Your task to perform on an android device: toggle translation in the chrome app Image 0: 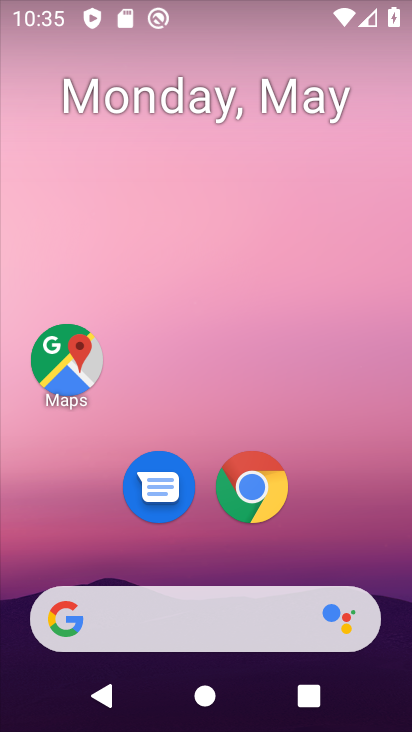
Step 0: drag from (386, 561) to (398, 250)
Your task to perform on an android device: toggle translation in the chrome app Image 1: 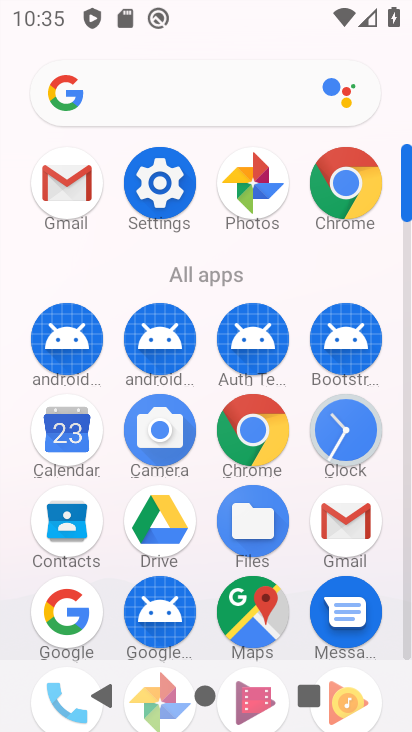
Step 1: click (250, 447)
Your task to perform on an android device: toggle translation in the chrome app Image 2: 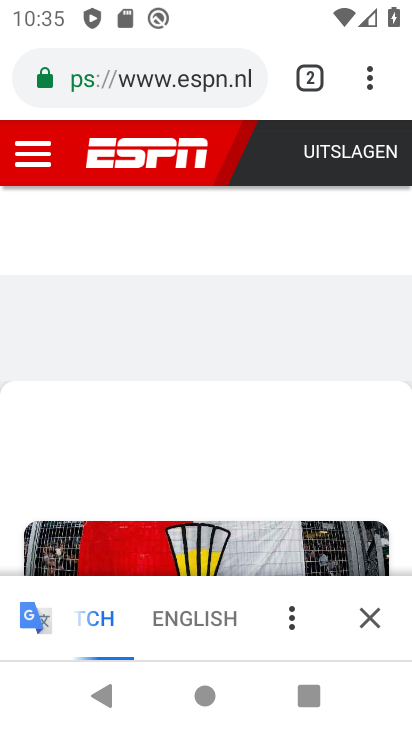
Step 2: click (369, 87)
Your task to perform on an android device: toggle translation in the chrome app Image 3: 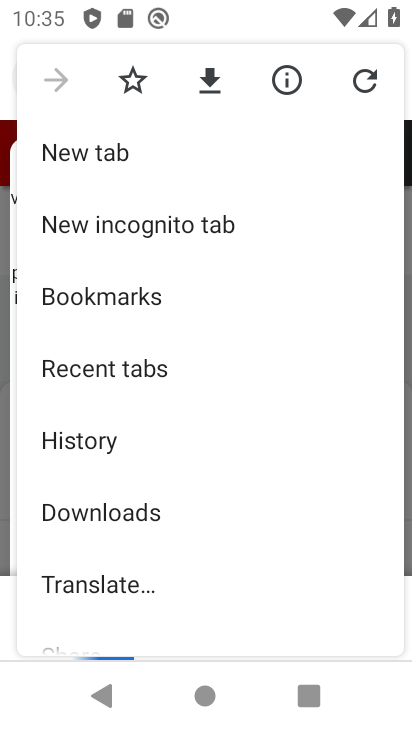
Step 3: drag from (312, 488) to (316, 382)
Your task to perform on an android device: toggle translation in the chrome app Image 4: 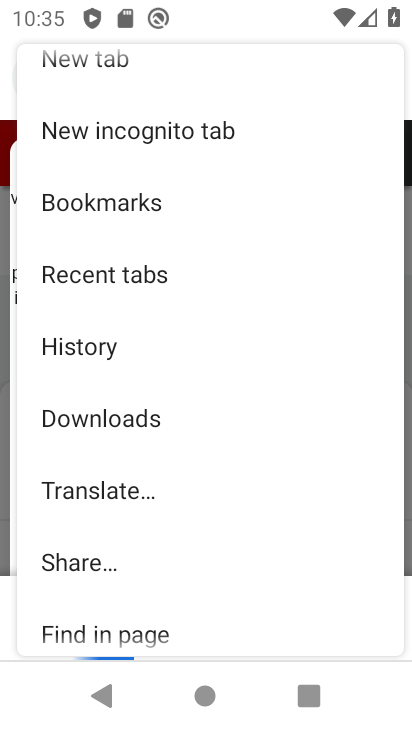
Step 4: drag from (309, 585) to (317, 383)
Your task to perform on an android device: toggle translation in the chrome app Image 5: 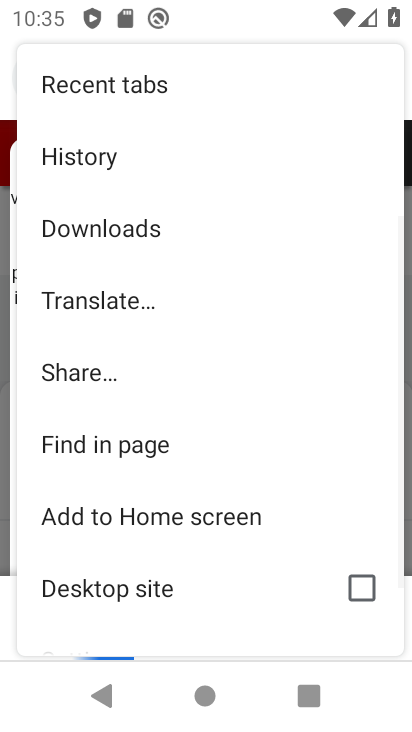
Step 5: drag from (274, 550) to (293, 436)
Your task to perform on an android device: toggle translation in the chrome app Image 6: 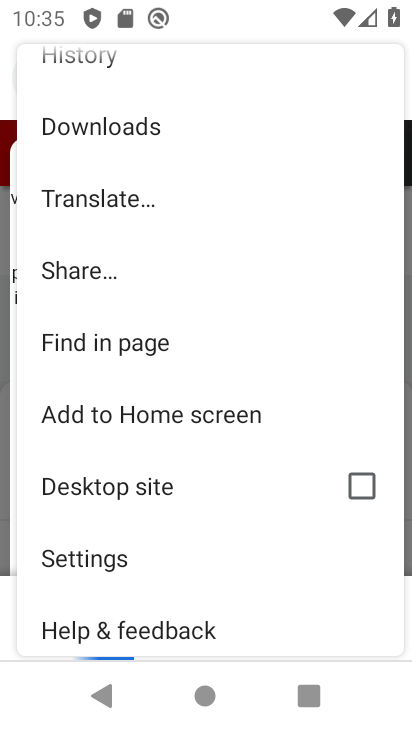
Step 6: drag from (285, 519) to (291, 482)
Your task to perform on an android device: toggle translation in the chrome app Image 7: 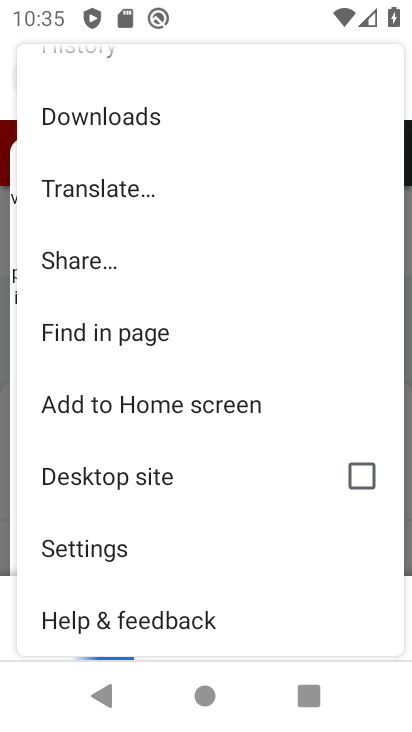
Step 7: click (145, 561)
Your task to perform on an android device: toggle translation in the chrome app Image 8: 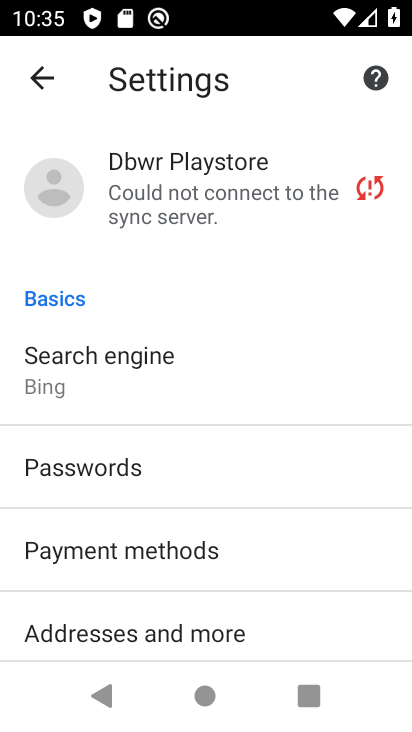
Step 8: drag from (296, 615) to (312, 530)
Your task to perform on an android device: toggle translation in the chrome app Image 9: 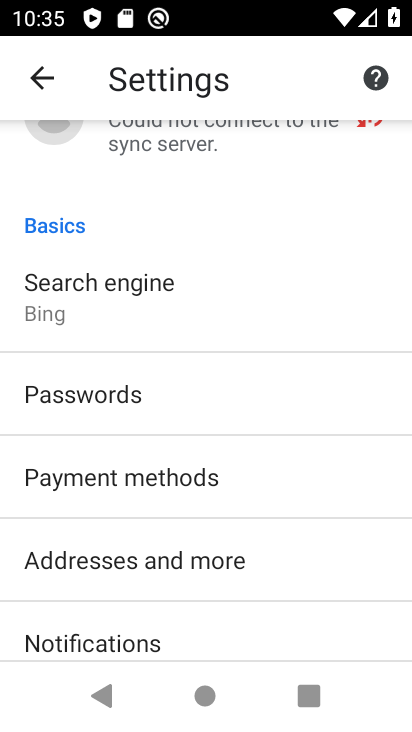
Step 9: click (303, 571)
Your task to perform on an android device: toggle translation in the chrome app Image 10: 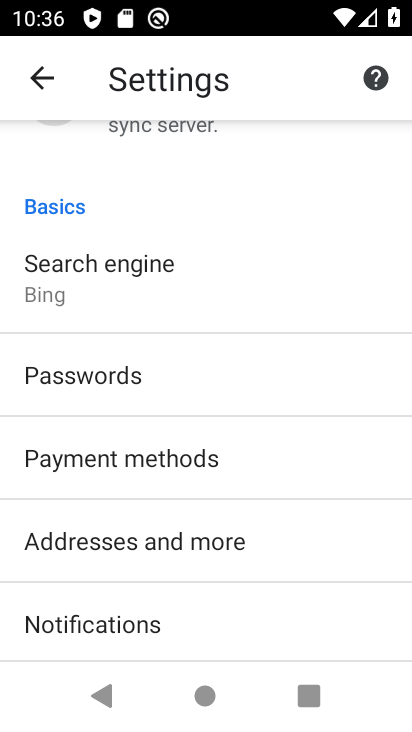
Step 10: click (303, 536)
Your task to perform on an android device: toggle translation in the chrome app Image 11: 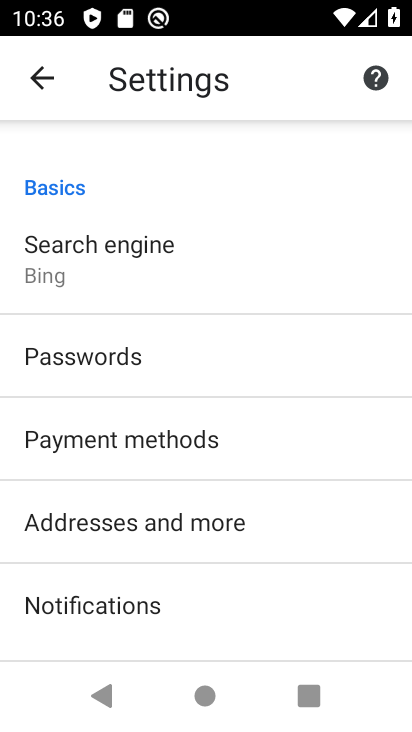
Step 11: drag from (304, 581) to (323, 472)
Your task to perform on an android device: toggle translation in the chrome app Image 12: 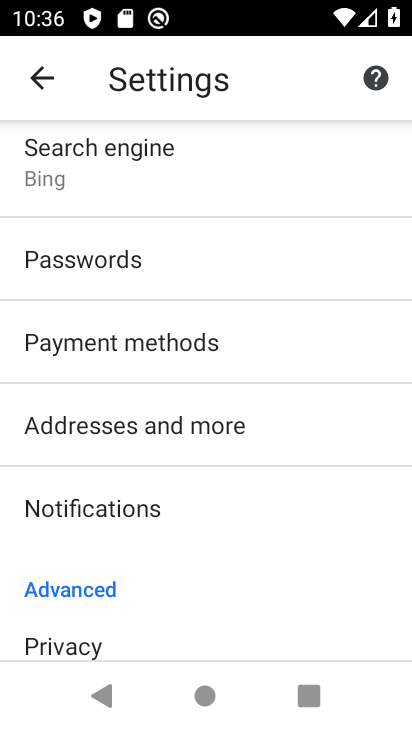
Step 12: drag from (324, 606) to (340, 514)
Your task to perform on an android device: toggle translation in the chrome app Image 13: 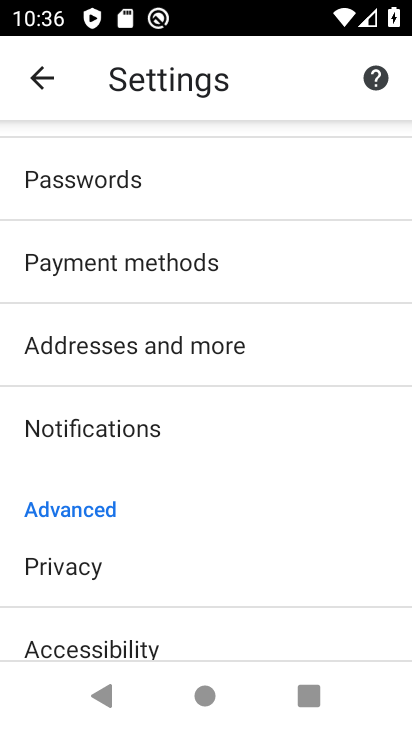
Step 13: drag from (266, 597) to (281, 496)
Your task to perform on an android device: toggle translation in the chrome app Image 14: 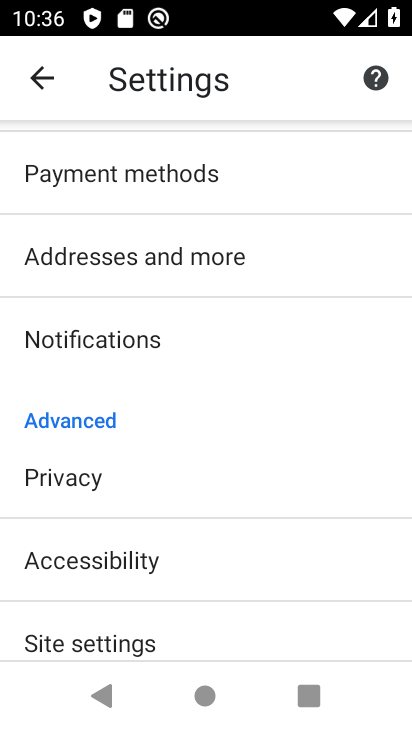
Step 14: drag from (273, 607) to (277, 516)
Your task to perform on an android device: toggle translation in the chrome app Image 15: 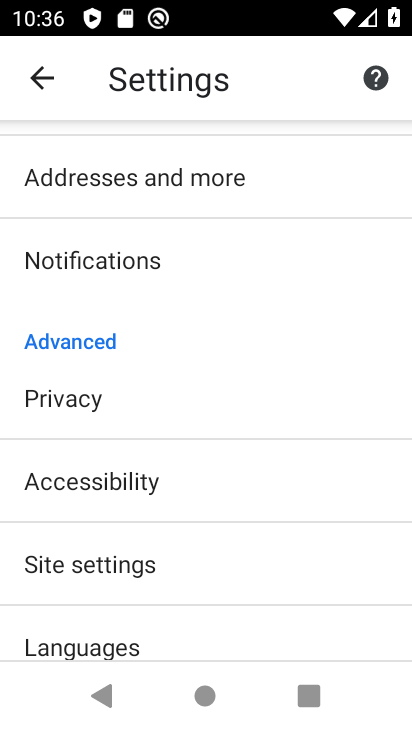
Step 15: drag from (260, 622) to (267, 524)
Your task to perform on an android device: toggle translation in the chrome app Image 16: 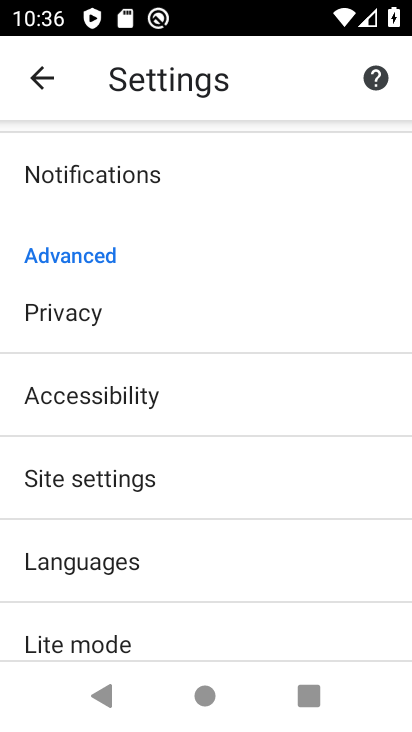
Step 16: click (252, 567)
Your task to perform on an android device: toggle translation in the chrome app Image 17: 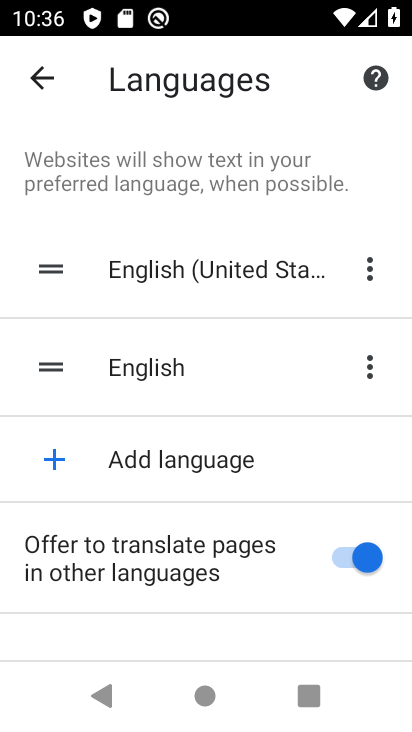
Step 17: click (340, 560)
Your task to perform on an android device: toggle translation in the chrome app Image 18: 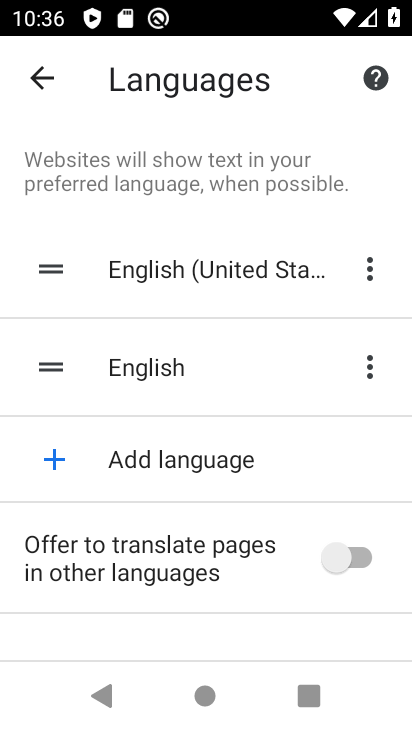
Step 18: task complete